Your task to perform on an android device: turn off picture-in-picture Image 0: 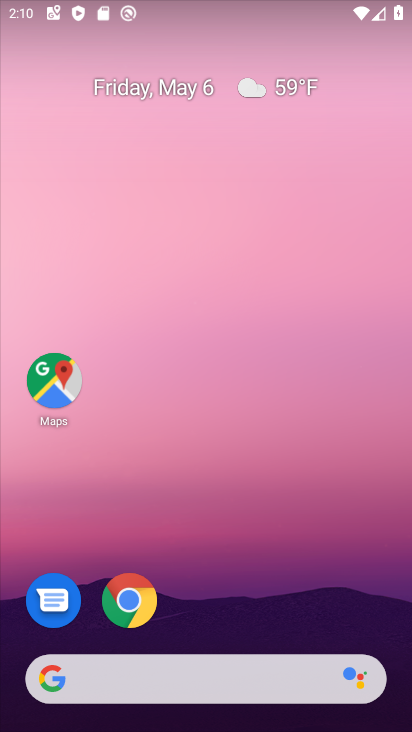
Step 0: drag from (212, 578) to (202, 185)
Your task to perform on an android device: turn off picture-in-picture Image 1: 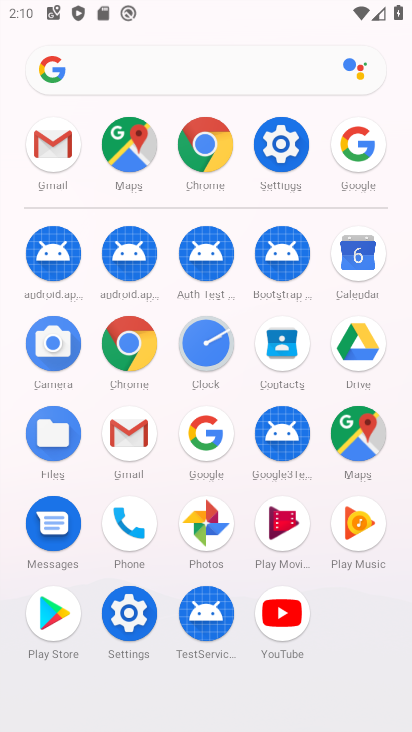
Step 1: click (202, 143)
Your task to perform on an android device: turn off picture-in-picture Image 2: 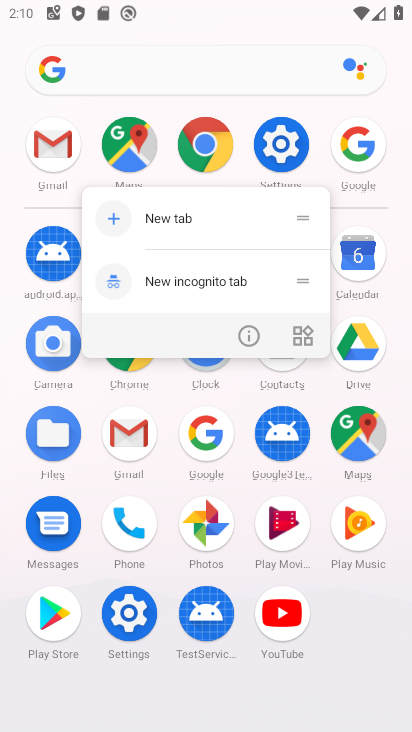
Step 2: click (255, 333)
Your task to perform on an android device: turn off picture-in-picture Image 3: 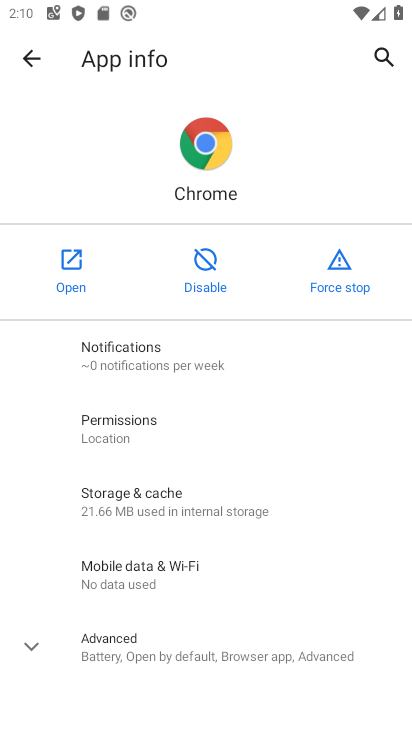
Step 3: click (182, 662)
Your task to perform on an android device: turn off picture-in-picture Image 4: 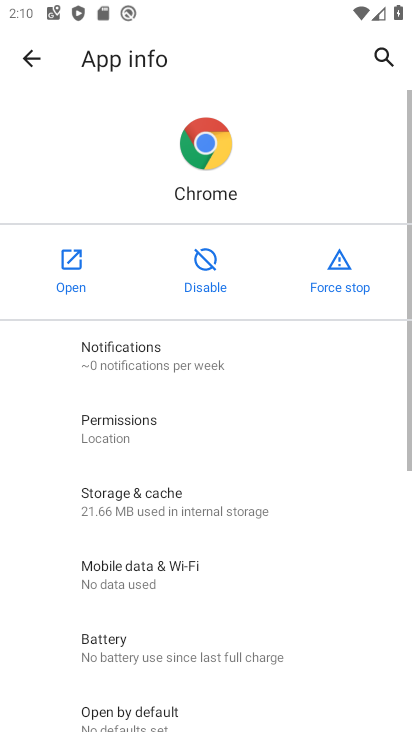
Step 4: drag from (187, 676) to (224, 171)
Your task to perform on an android device: turn off picture-in-picture Image 5: 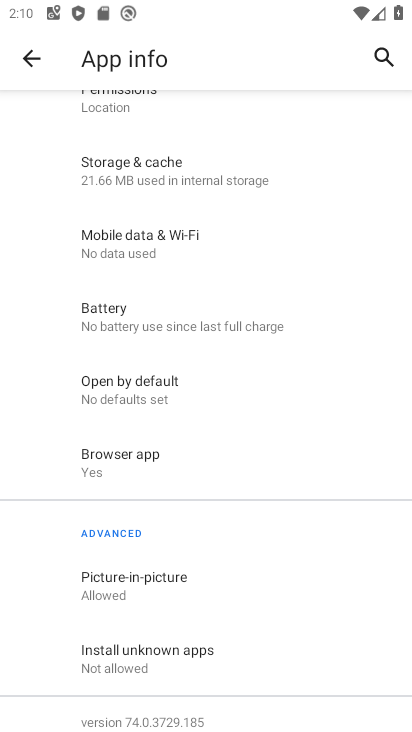
Step 5: click (156, 600)
Your task to perform on an android device: turn off picture-in-picture Image 6: 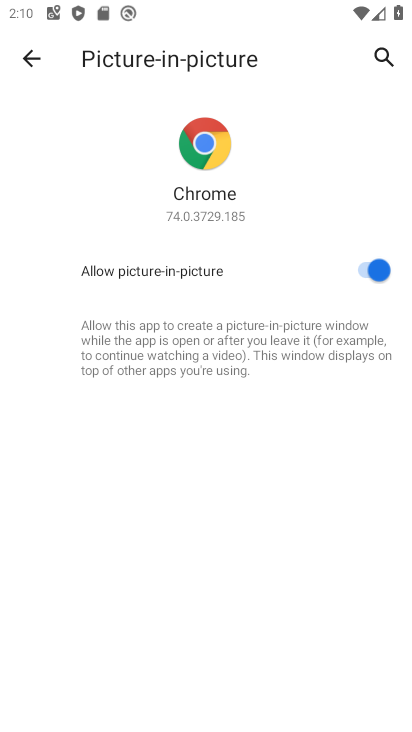
Step 6: click (374, 282)
Your task to perform on an android device: turn off picture-in-picture Image 7: 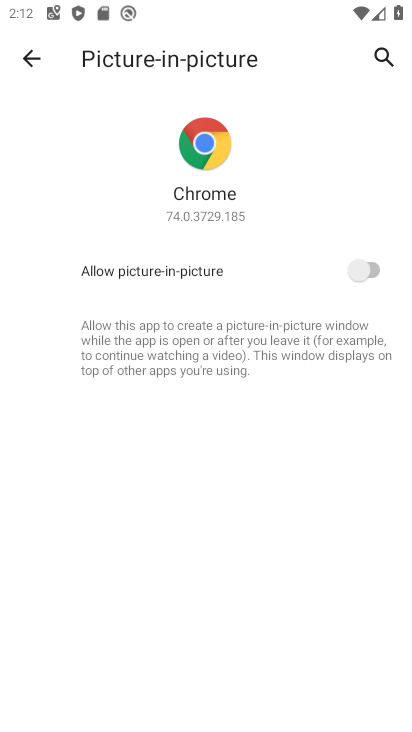
Step 7: task complete